Your task to perform on an android device: Open notification settings Image 0: 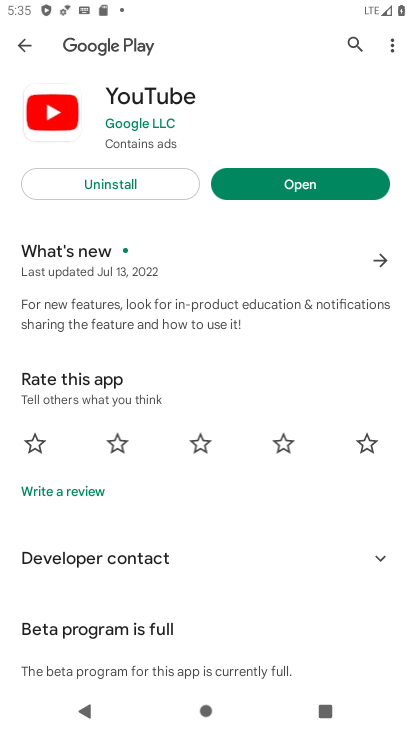
Step 0: press home button
Your task to perform on an android device: Open notification settings Image 1: 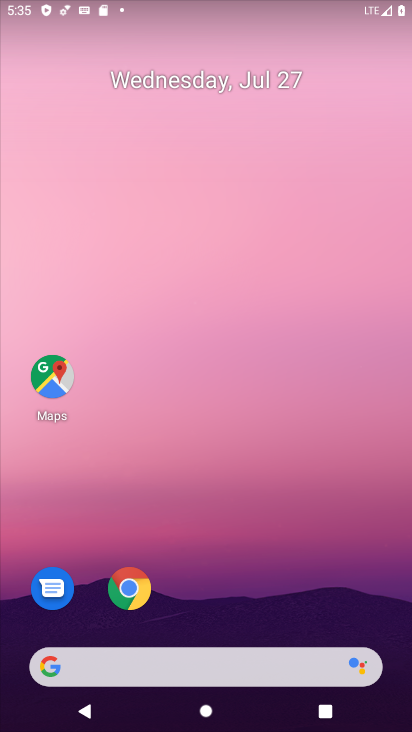
Step 1: drag from (284, 581) to (337, 111)
Your task to perform on an android device: Open notification settings Image 2: 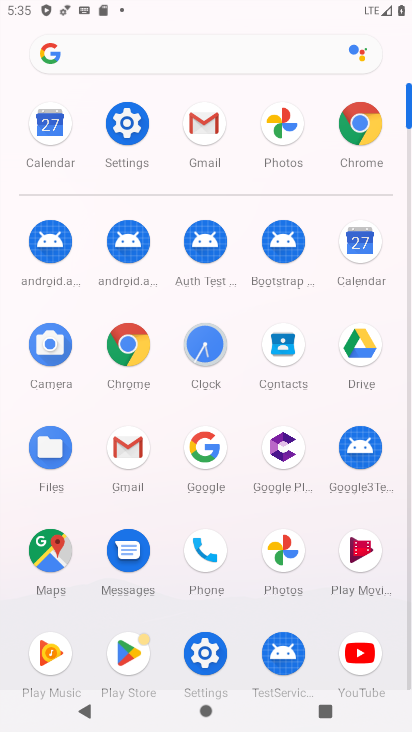
Step 2: click (119, 107)
Your task to perform on an android device: Open notification settings Image 3: 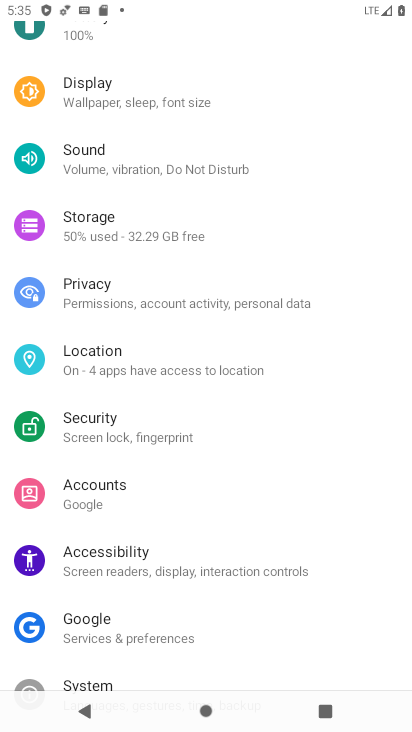
Step 3: drag from (177, 224) to (202, 521)
Your task to perform on an android device: Open notification settings Image 4: 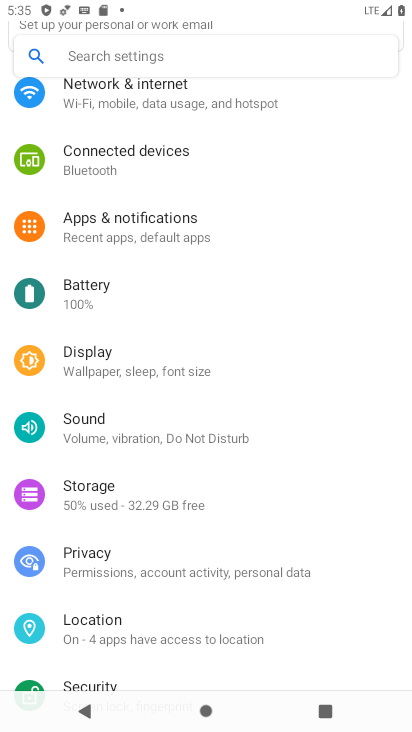
Step 4: click (213, 232)
Your task to perform on an android device: Open notification settings Image 5: 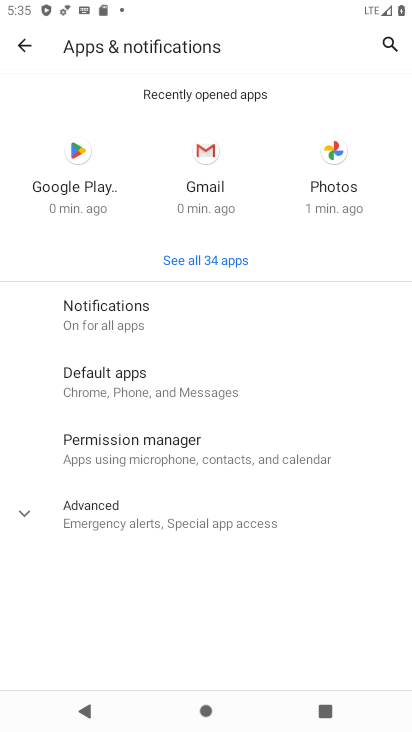
Step 5: task complete